Your task to perform on an android device: Empty the shopping cart on amazon. Search for macbook pro on amazon, select the first entry, add it to the cart, then select checkout. Image 0: 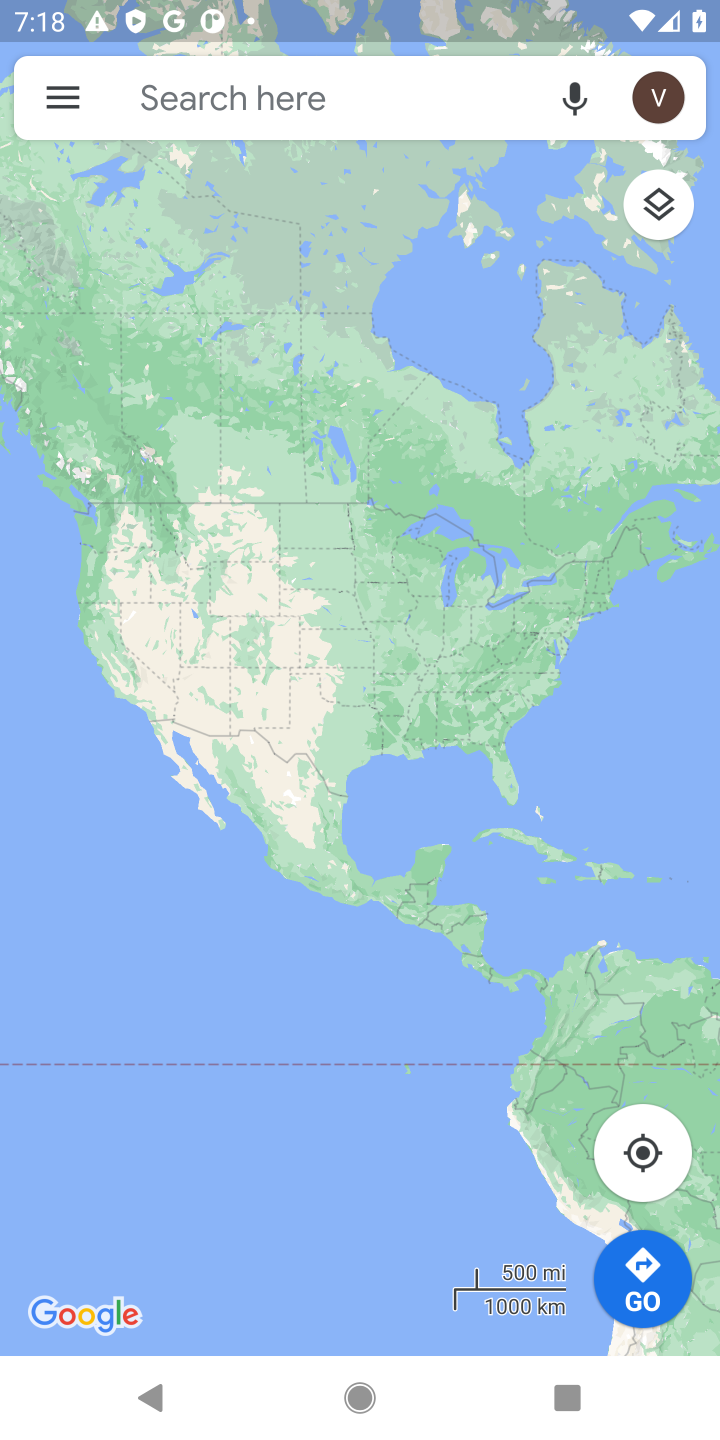
Step 0: press home button
Your task to perform on an android device: Empty the shopping cart on amazon. Search for macbook pro on amazon, select the first entry, add it to the cart, then select checkout. Image 1: 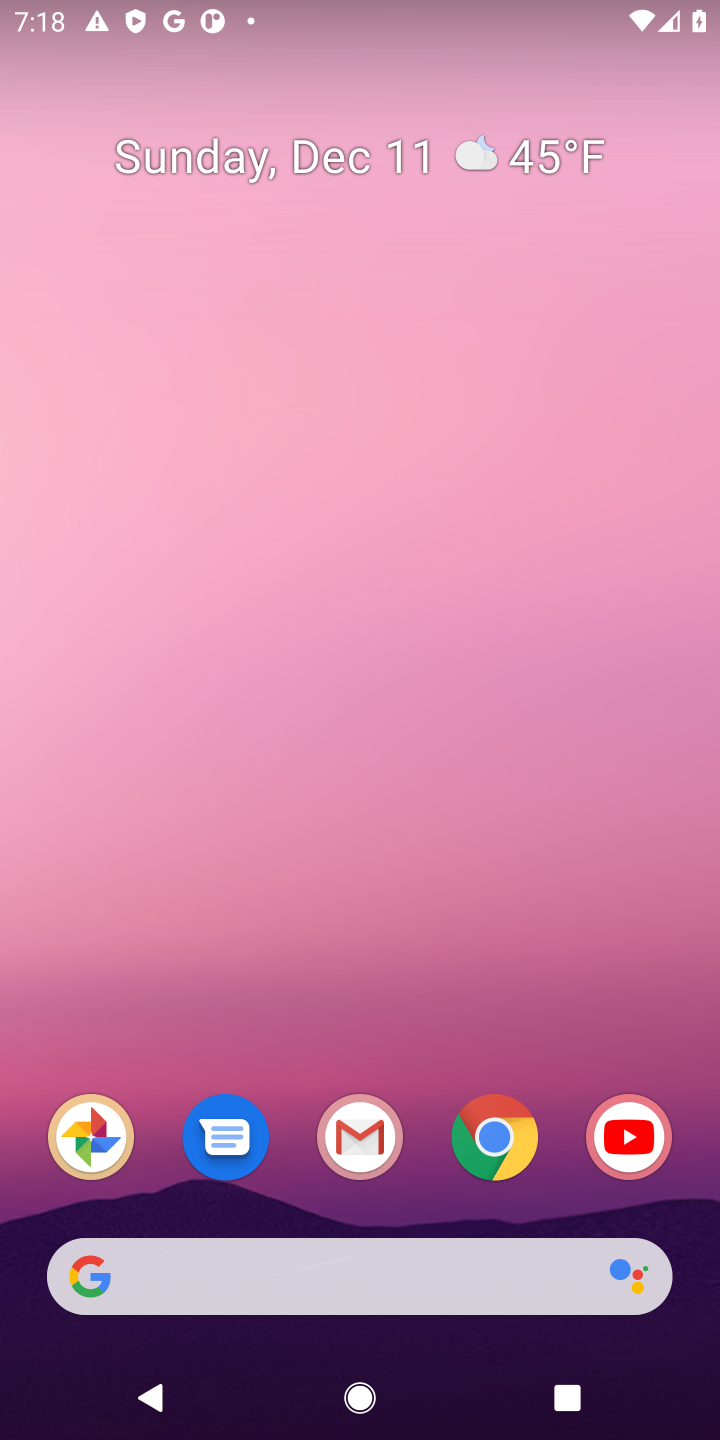
Step 1: click (517, 1134)
Your task to perform on an android device: Empty the shopping cart on amazon. Search for macbook pro on amazon, select the first entry, add it to the cart, then select checkout. Image 2: 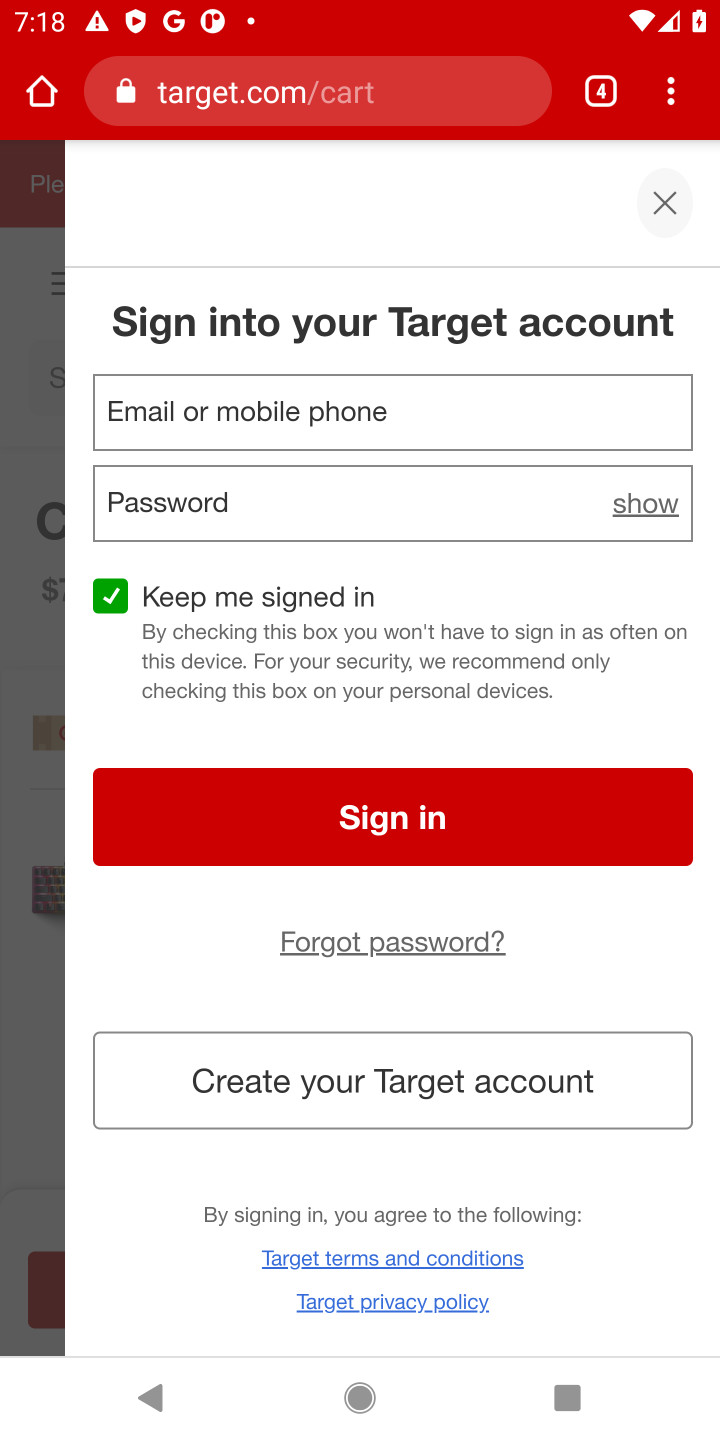
Step 2: click (267, 87)
Your task to perform on an android device: Empty the shopping cart on amazon. Search for macbook pro on amazon, select the first entry, add it to the cart, then select checkout. Image 3: 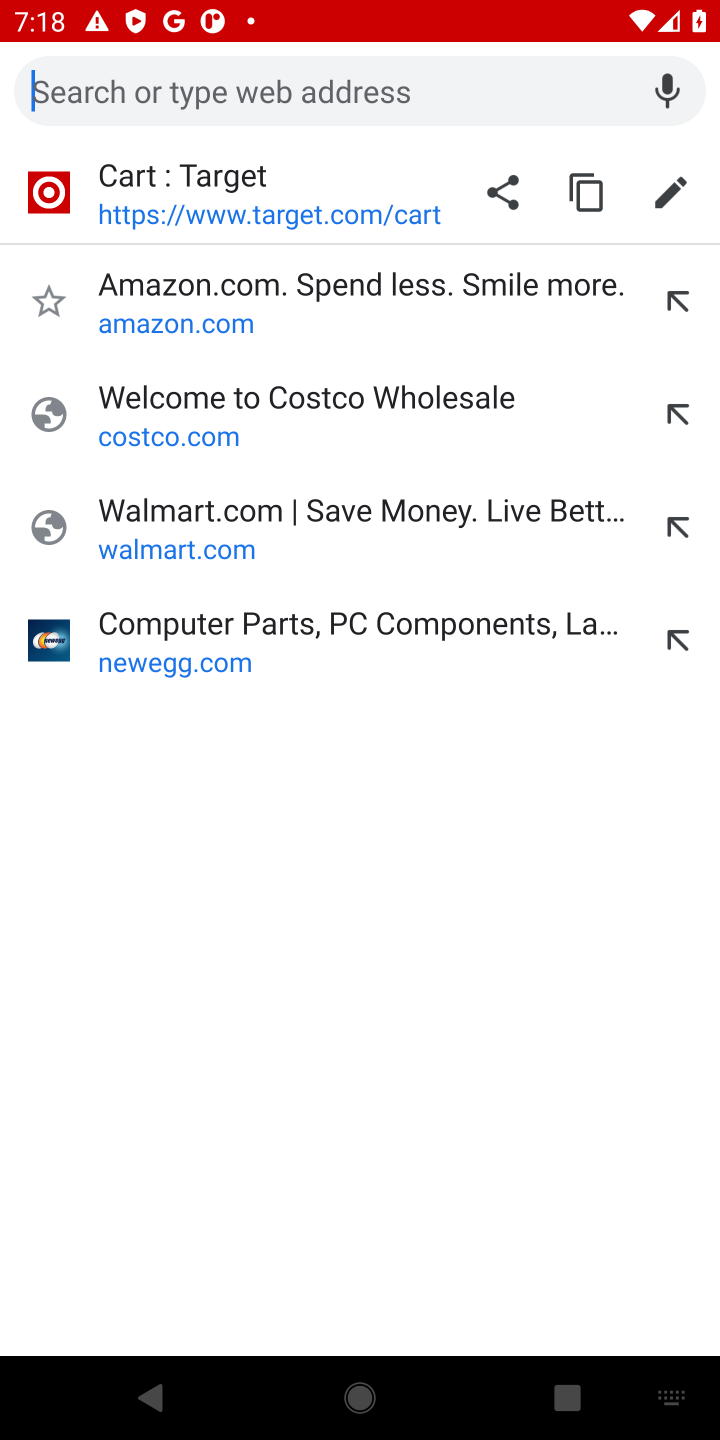
Step 3: click (304, 280)
Your task to perform on an android device: Empty the shopping cart on amazon. Search for macbook pro on amazon, select the first entry, add it to the cart, then select checkout. Image 4: 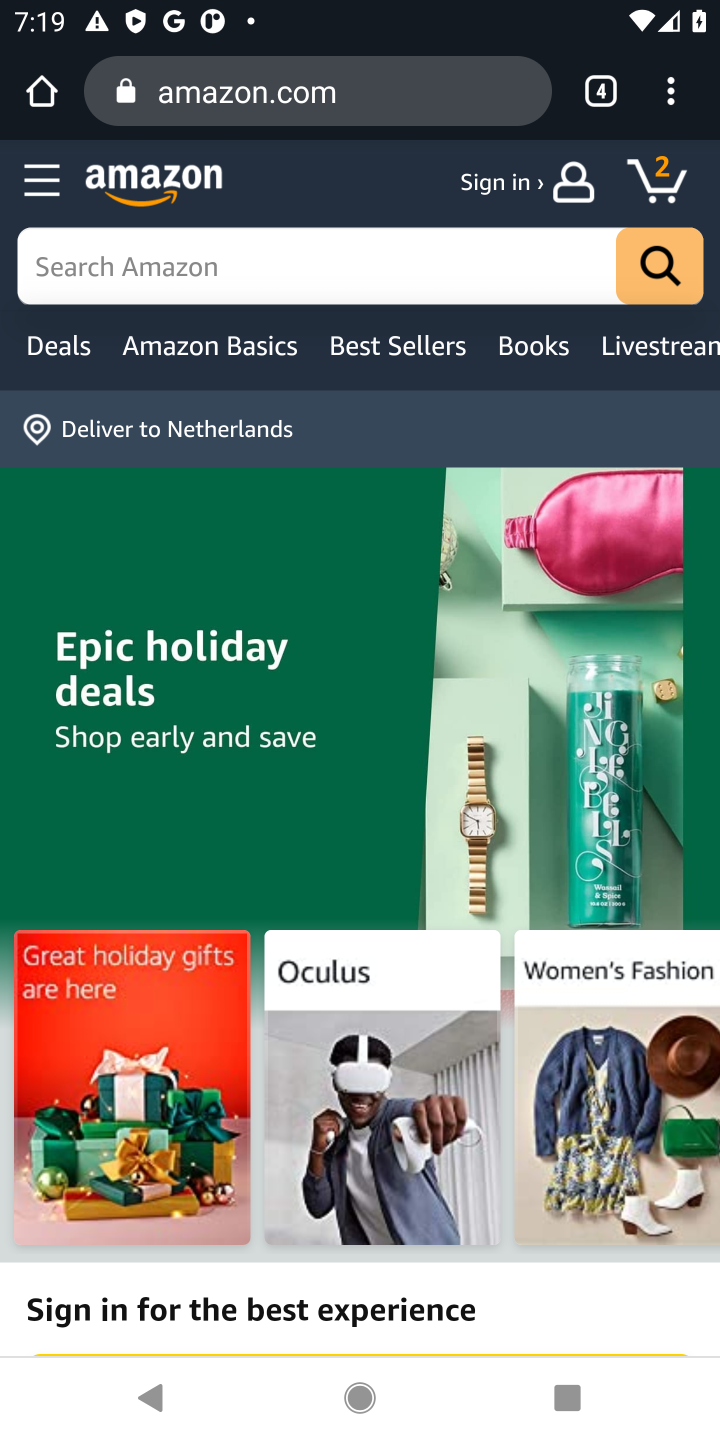
Step 4: click (672, 161)
Your task to perform on an android device: Empty the shopping cart on amazon. Search for macbook pro on amazon, select the first entry, add it to the cart, then select checkout. Image 5: 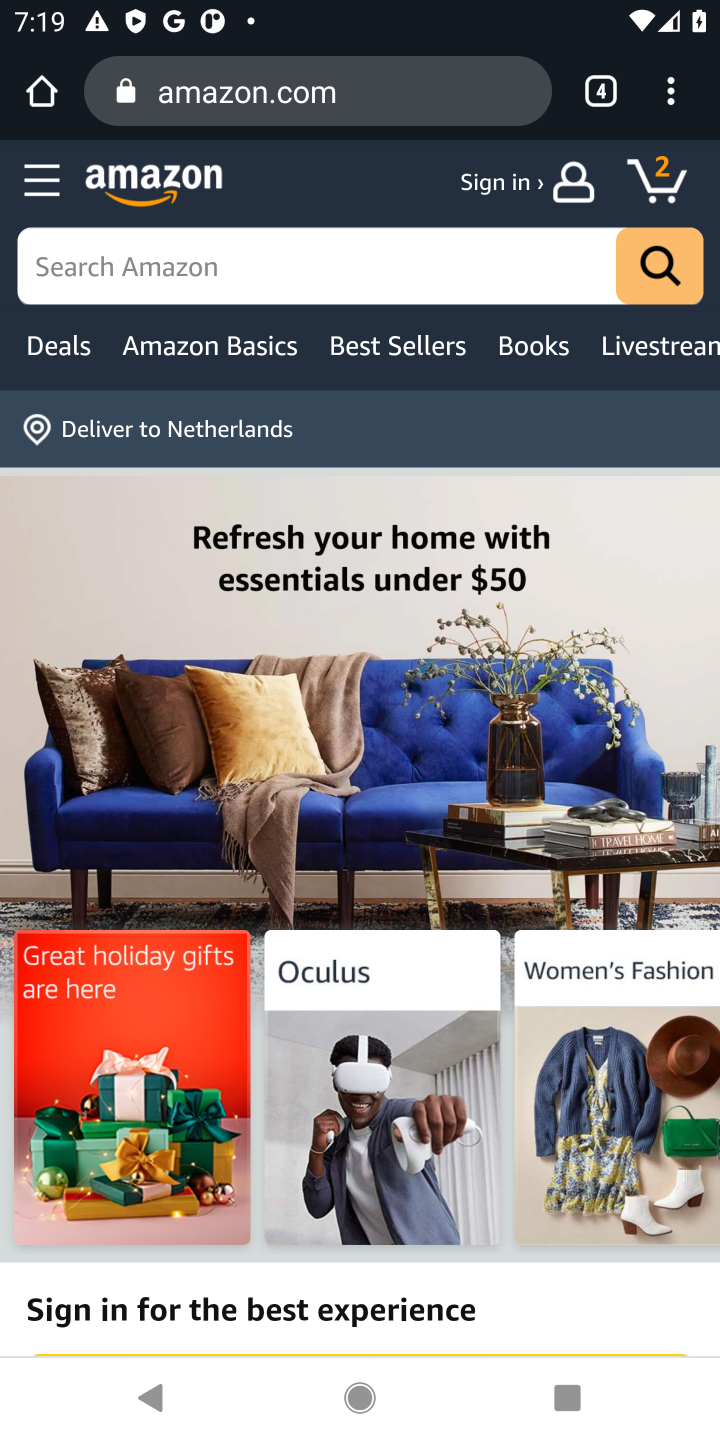
Step 5: click (665, 186)
Your task to perform on an android device: Empty the shopping cart on amazon. Search for macbook pro on amazon, select the first entry, add it to the cart, then select checkout. Image 6: 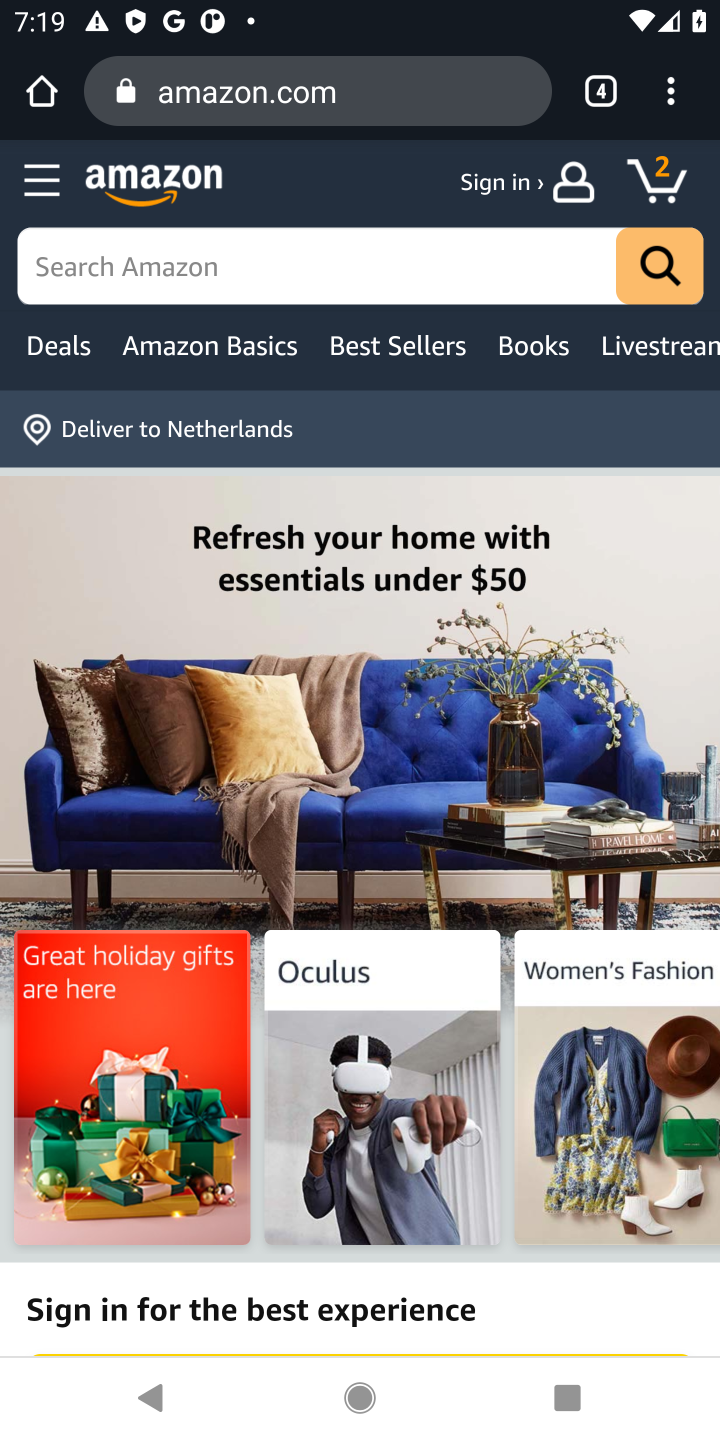
Step 6: click (665, 186)
Your task to perform on an android device: Empty the shopping cart on amazon. Search for macbook pro on amazon, select the first entry, add it to the cart, then select checkout. Image 7: 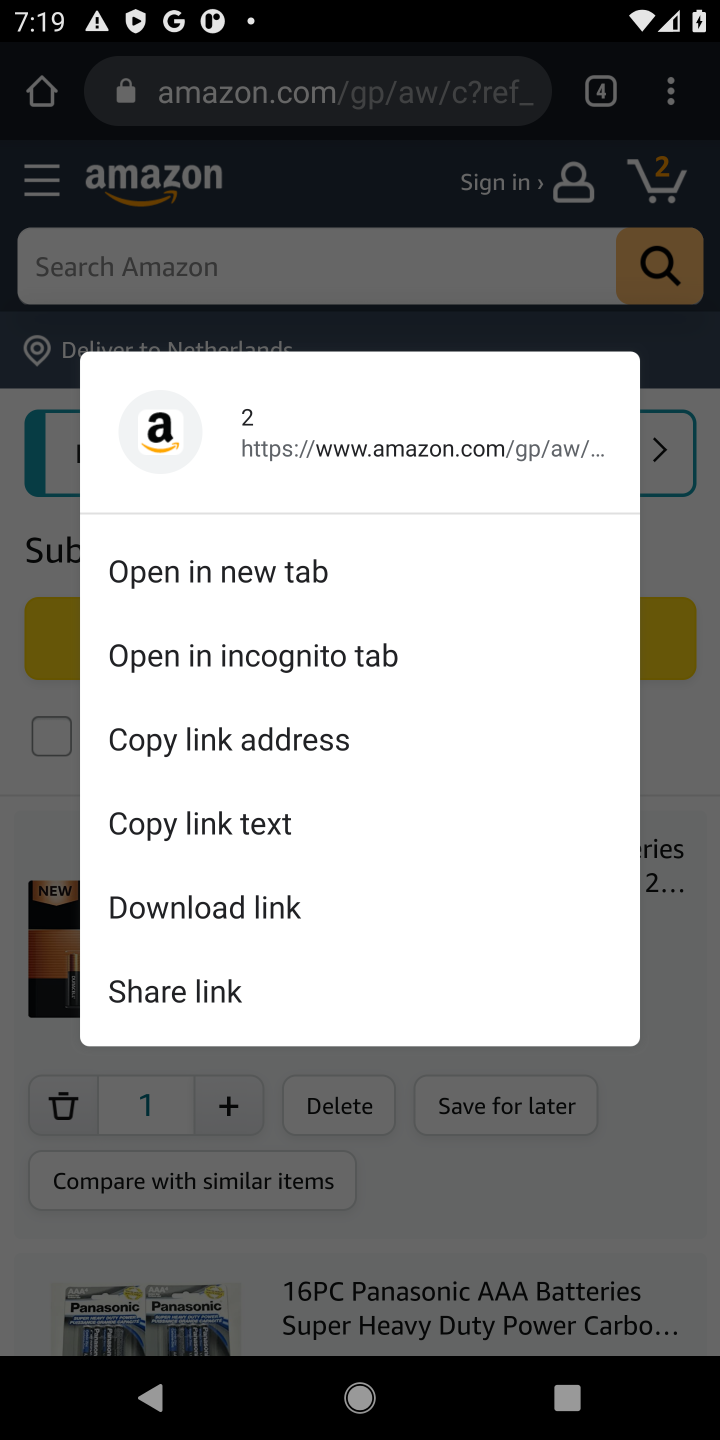
Step 7: click (63, 1115)
Your task to perform on an android device: Empty the shopping cart on amazon. Search for macbook pro on amazon, select the first entry, add it to the cart, then select checkout. Image 8: 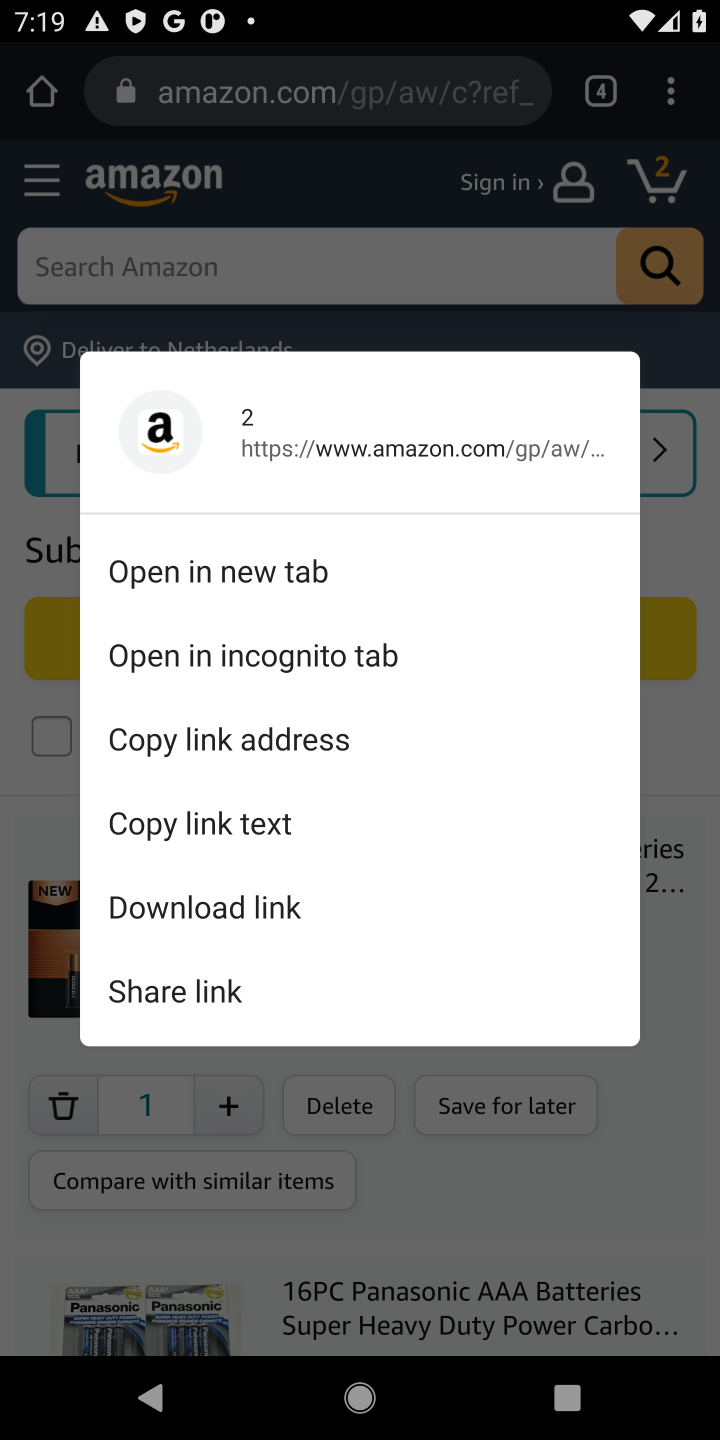
Step 8: click (63, 1115)
Your task to perform on an android device: Empty the shopping cart on amazon. Search for macbook pro on amazon, select the first entry, add it to the cart, then select checkout. Image 9: 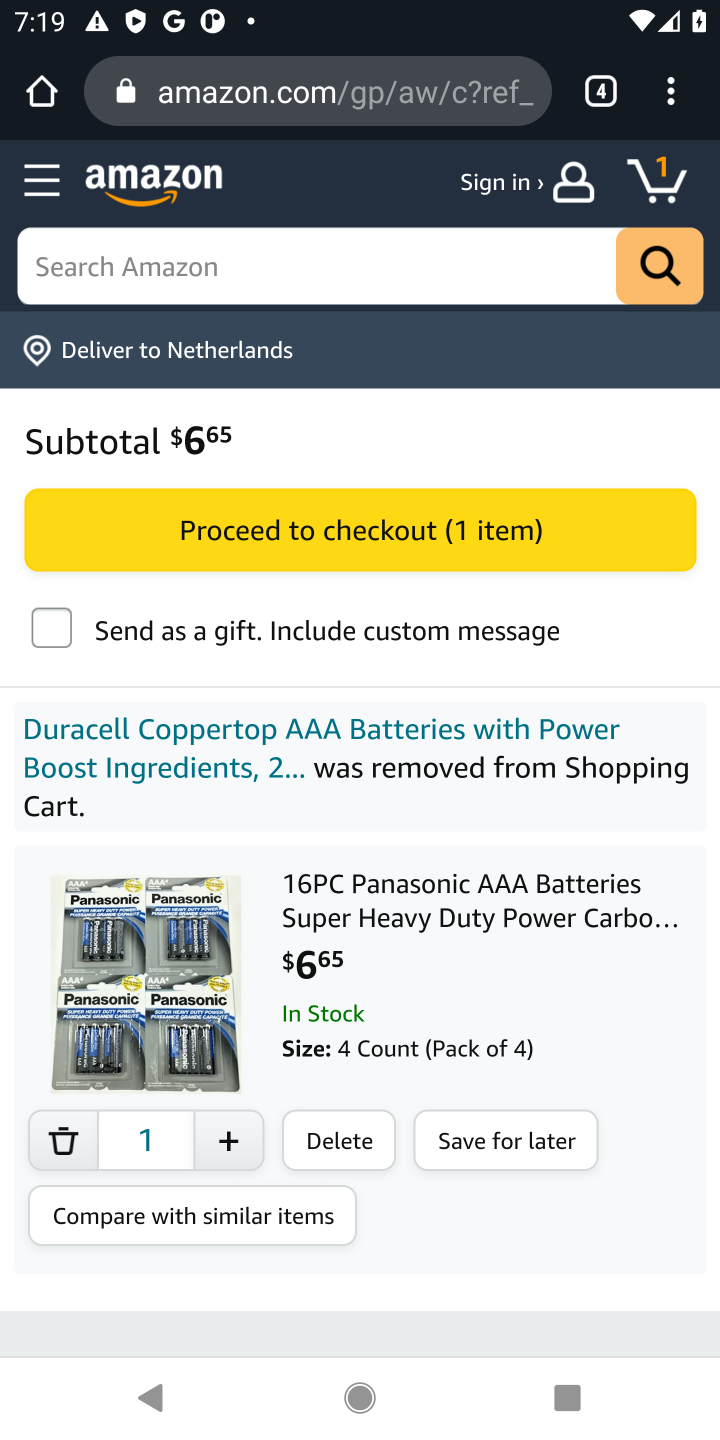
Step 9: click (57, 1134)
Your task to perform on an android device: Empty the shopping cart on amazon. Search for macbook pro on amazon, select the first entry, add it to the cart, then select checkout. Image 10: 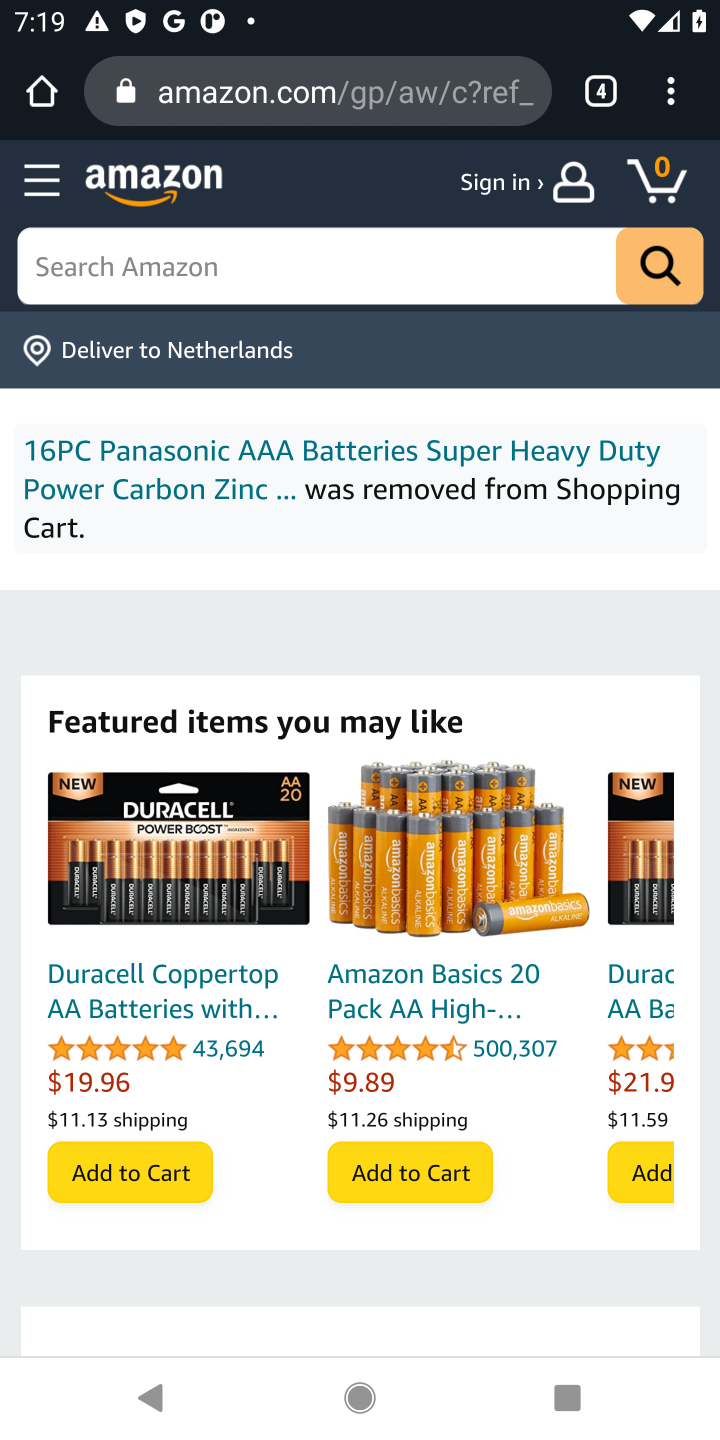
Step 10: click (225, 254)
Your task to perform on an android device: Empty the shopping cart on amazon. Search for macbook pro on amazon, select the first entry, add it to the cart, then select checkout. Image 11: 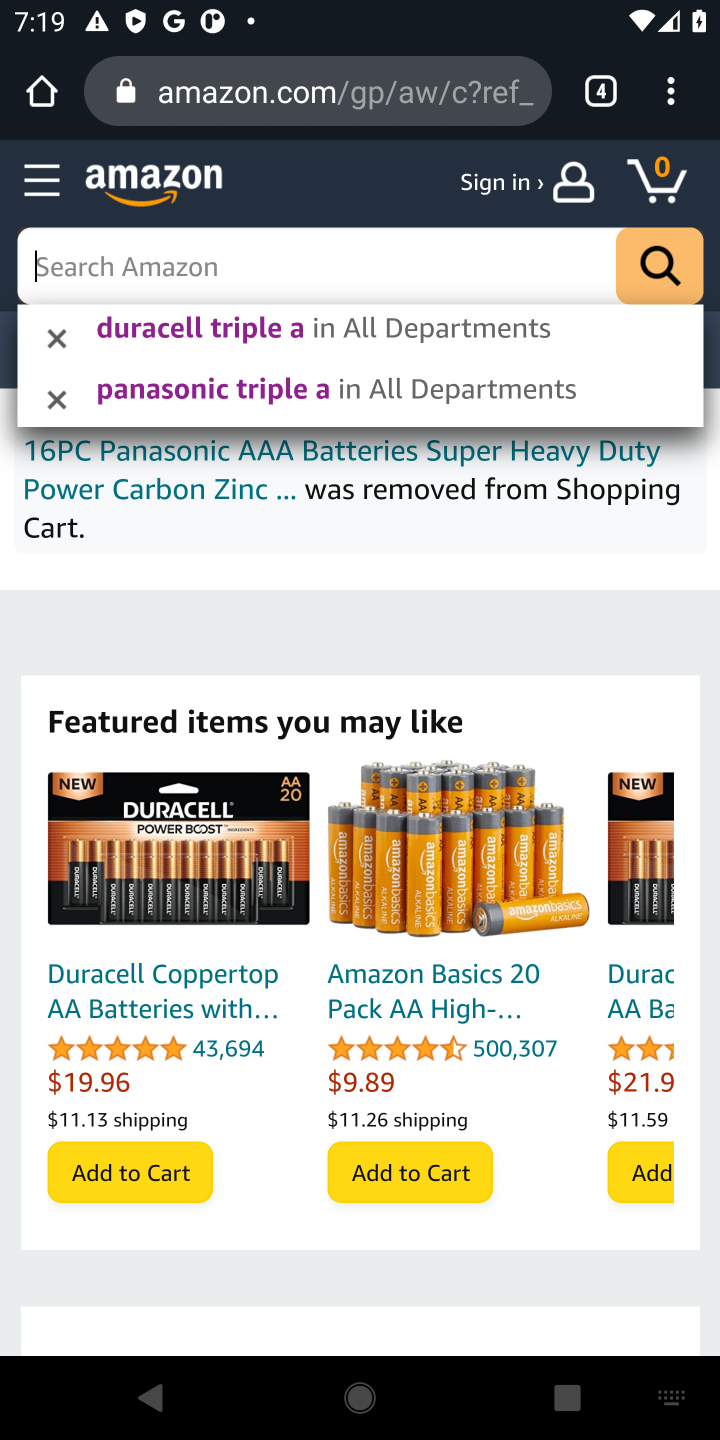
Step 11: type "macbook pro on"
Your task to perform on an android device: Empty the shopping cart on amazon. Search for macbook pro on amazon, select the first entry, add it to the cart, then select checkout. Image 12: 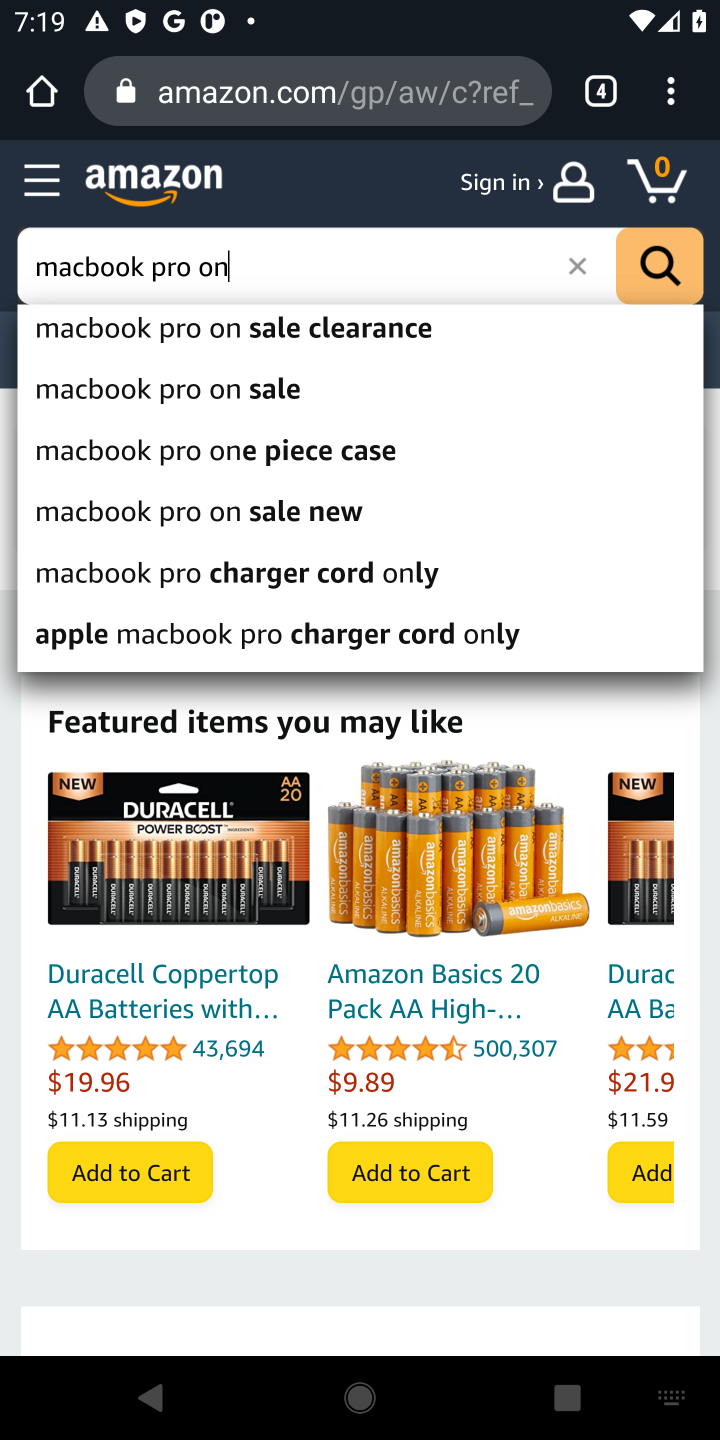
Step 12: click (635, 258)
Your task to perform on an android device: Empty the shopping cart on amazon. Search for macbook pro on amazon, select the first entry, add it to the cart, then select checkout. Image 13: 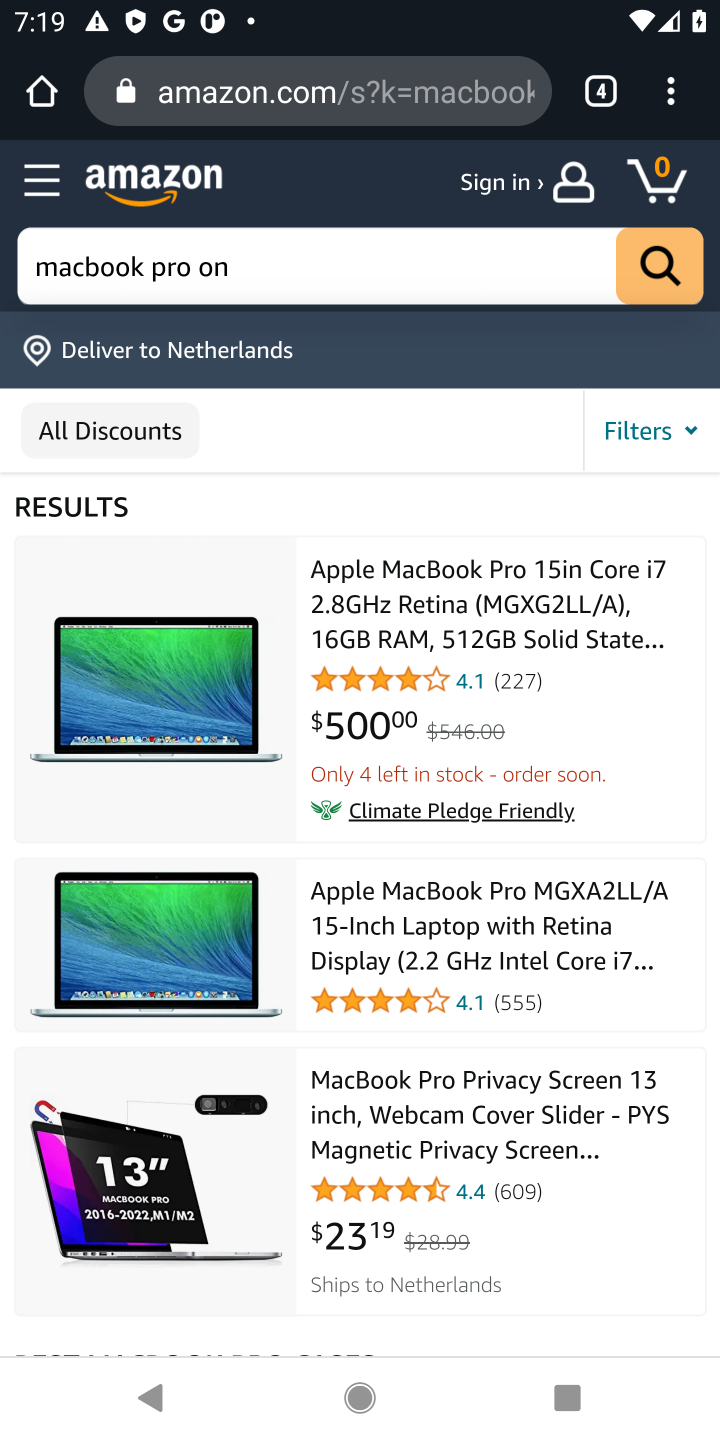
Step 13: click (482, 640)
Your task to perform on an android device: Empty the shopping cart on amazon. Search for macbook pro on amazon, select the first entry, add it to the cart, then select checkout. Image 14: 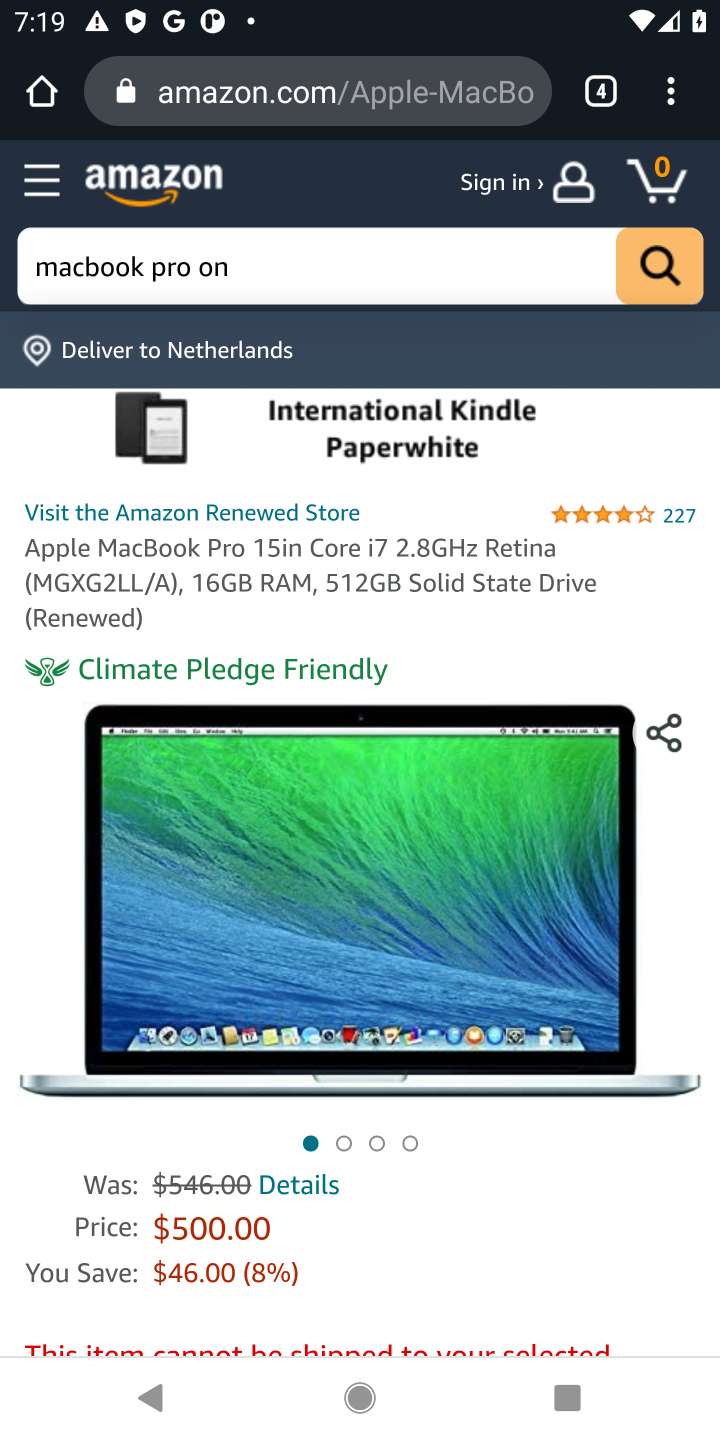
Step 14: drag from (399, 1282) to (348, 556)
Your task to perform on an android device: Empty the shopping cart on amazon. Search for macbook pro on amazon, select the first entry, add it to the cart, then select checkout. Image 15: 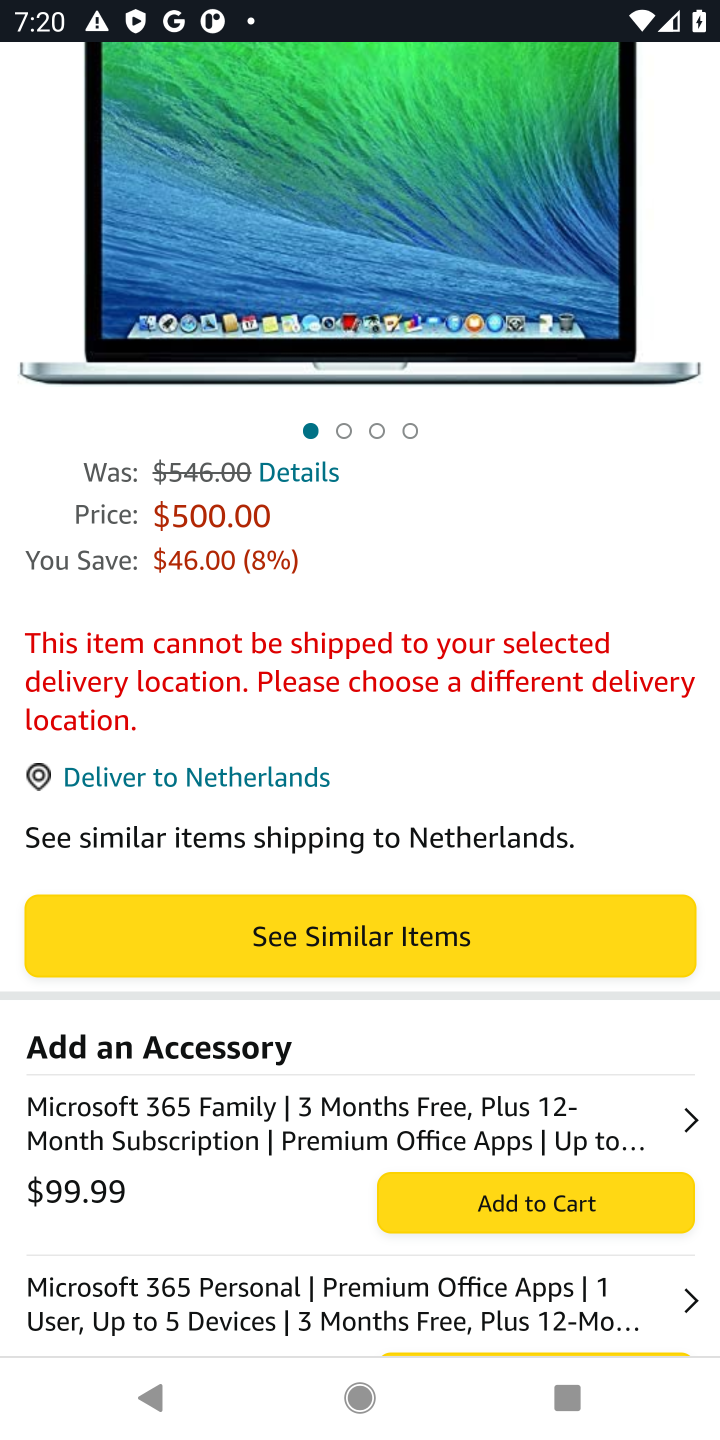
Step 15: click (281, 955)
Your task to perform on an android device: Empty the shopping cart on amazon. Search for macbook pro on amazon, select the first entry, add it to the cart, then select checkout. Image 16: 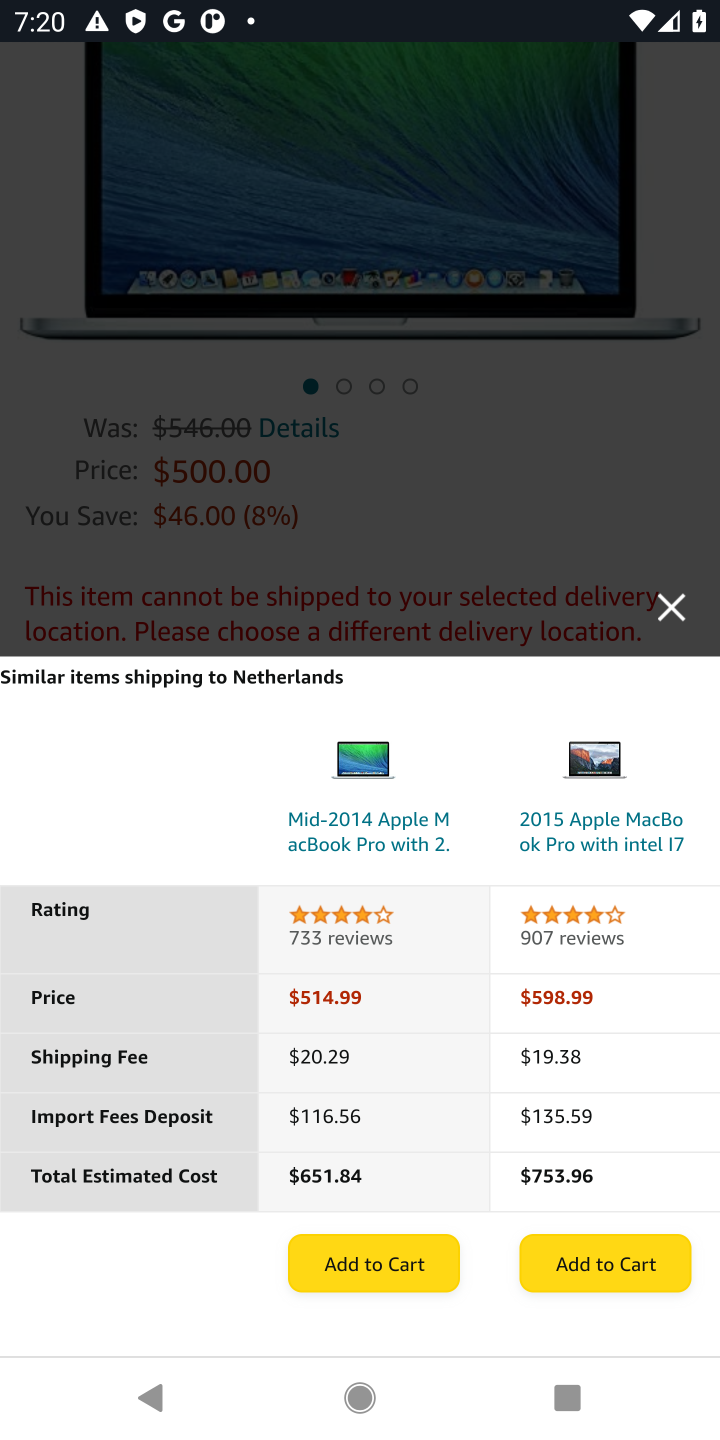
Step 16: click (429, 1265)
Your task to perform on an android device: Empty the shopping cart on amazon. Search for macbook pro on amazon, select the first entry, add it to the cart, then select checkout. Image 17: 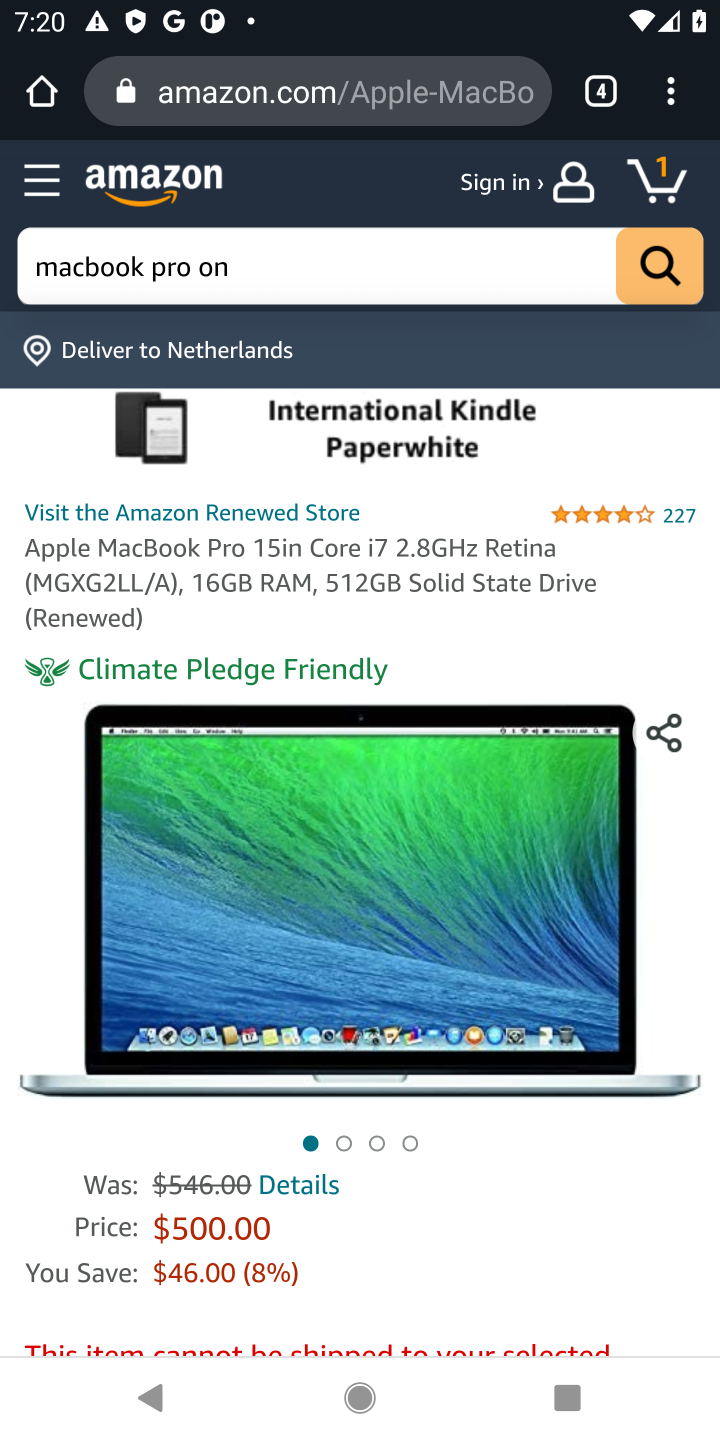
Step 17: click (673, 191)
Your task to perform on an android device: Empty the shopping cart on amazon. Search for macbook pro on amazon, select the first entry, add it to the cart, then select checkout. Image 18: 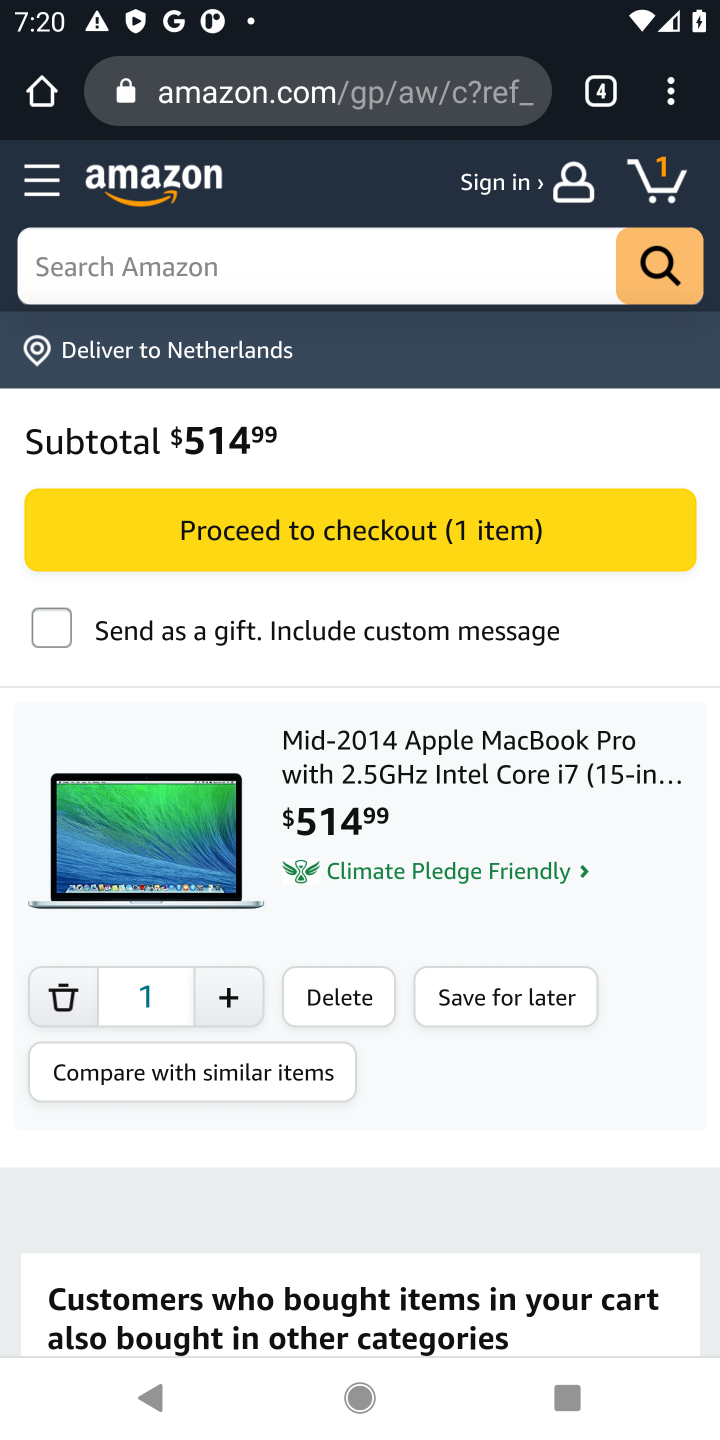
Step 18: click (349, 558)
Your task to perform on an android device: Empty the shopping cart on amazon. Search for macbook pro on amazon, select the first entry, add it to the cart, then select checkout. Image 19: 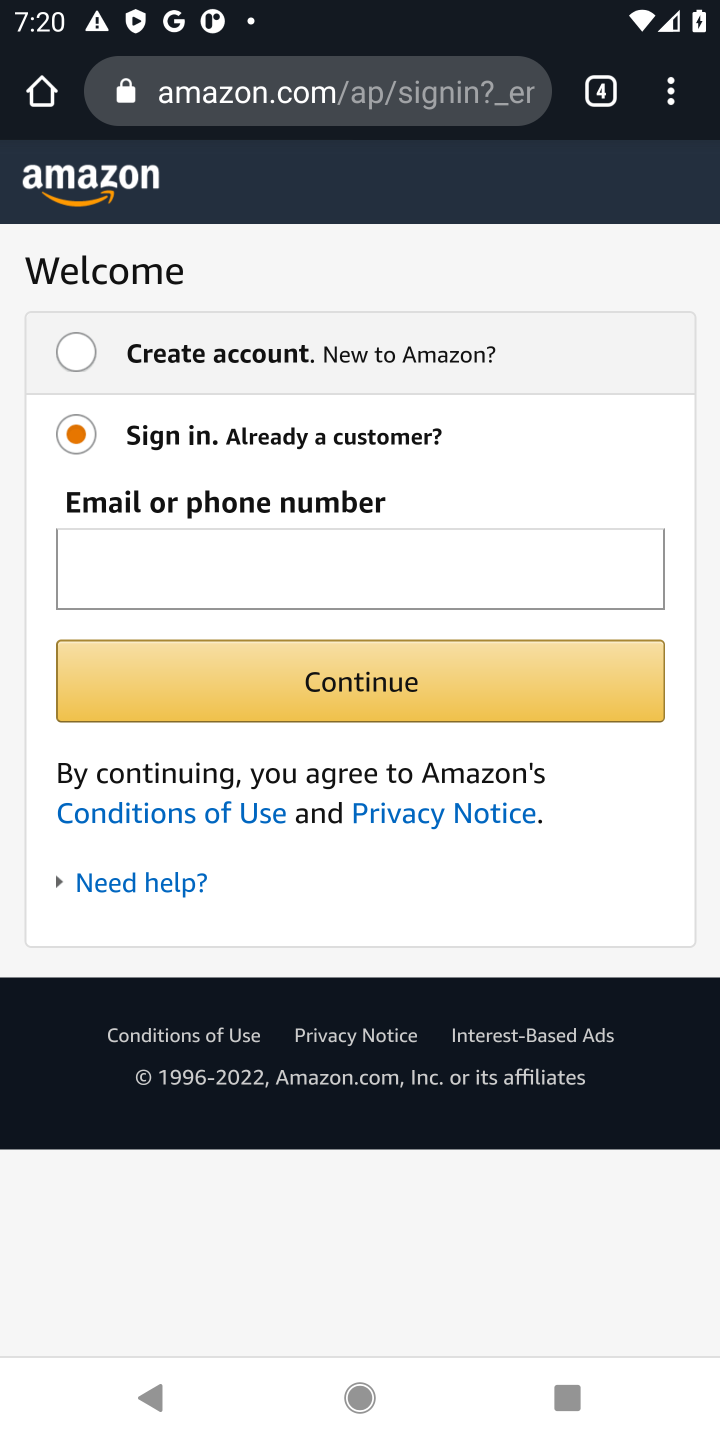
Step 19: task complete